Your task to perform on an android device: check out phone information Image 0: 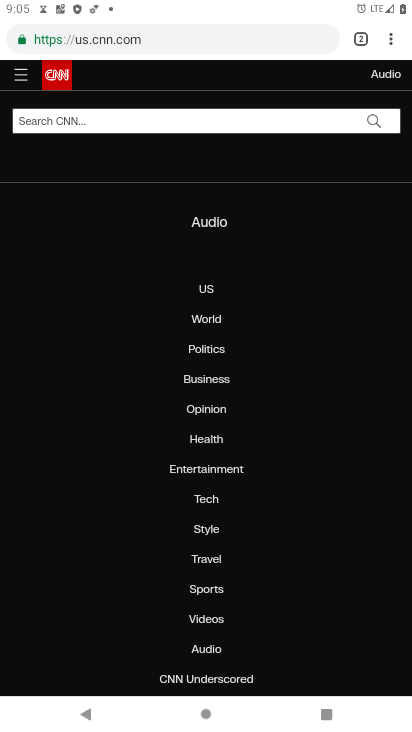
Step 0: press home button
Your task to perform on an android device: check out phone information Image 1: 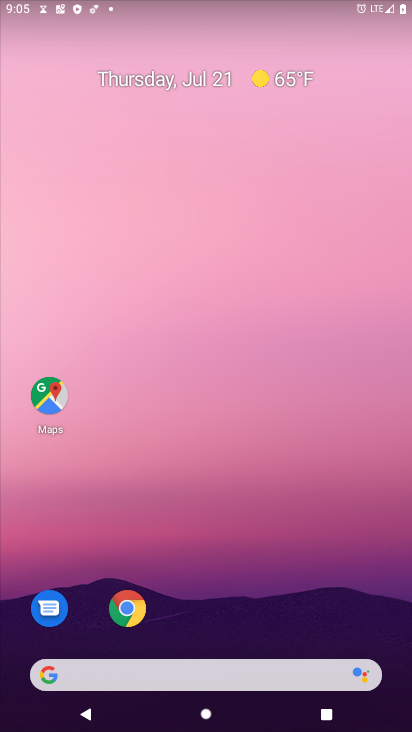
Step 1: drag from (215, 677) to (198, 11)
Your task to perform on an android device: check out phone information Image 2: 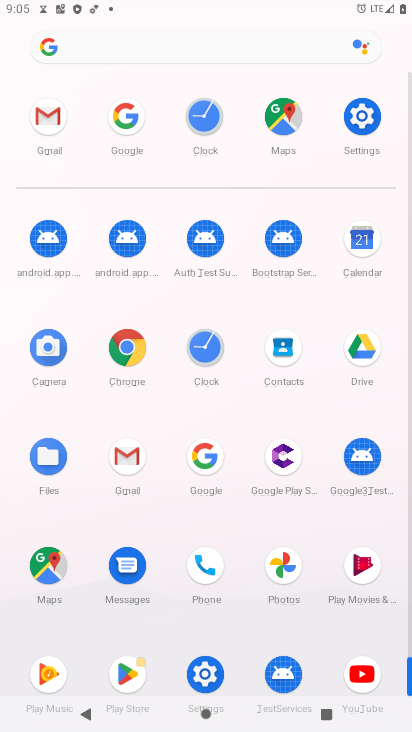
Step 2: click (361, 115)
Your task to perform on an android device: check out phone information Image 3: 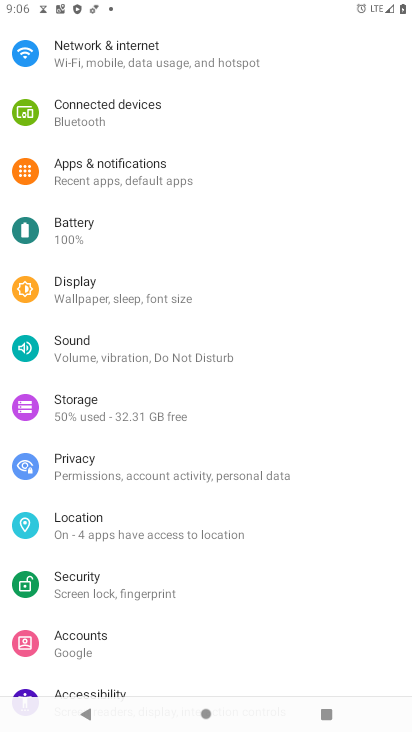
Step 3: drag from (129, 582) to (252, 418)
Your task to perform on an android device: check out phone information Image 4: 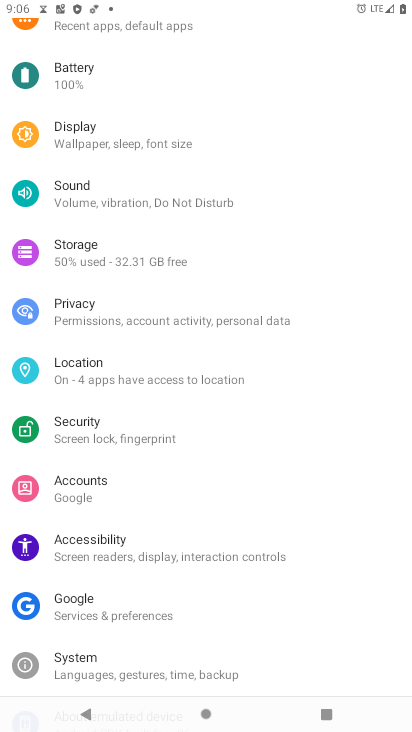
Step 4: drag from (110, 571) to (174, 483)
Your task to perform on an android device: check out phone information Image 5: 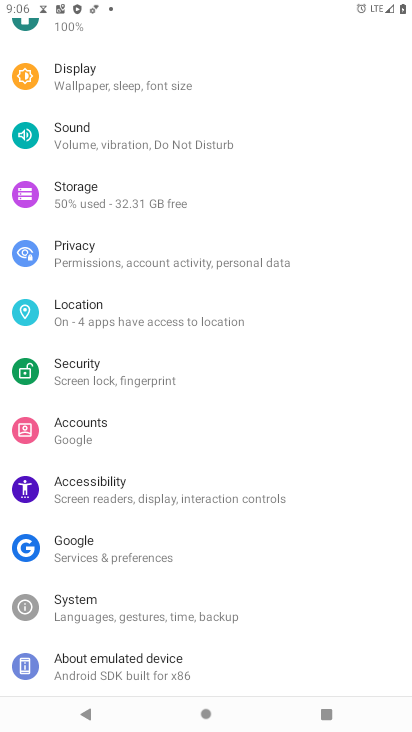
Step 5: drag from (131, 593) to (221, 456)
Your task to perform on an android device: check out phone information Image 6: 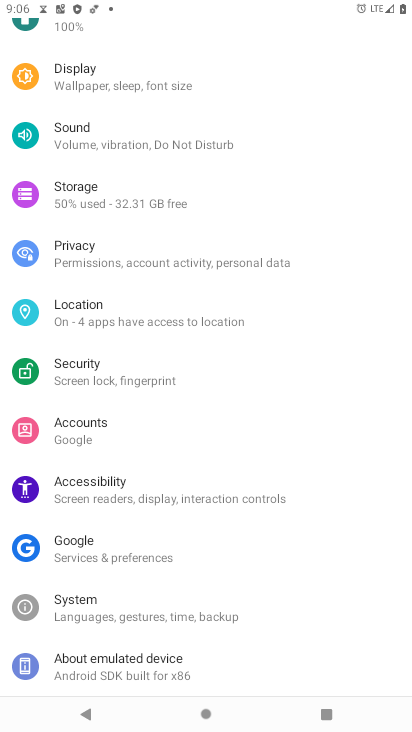
Step 6: click (107, 661)
Your task to perform on an android device: check out phone information Image 7: 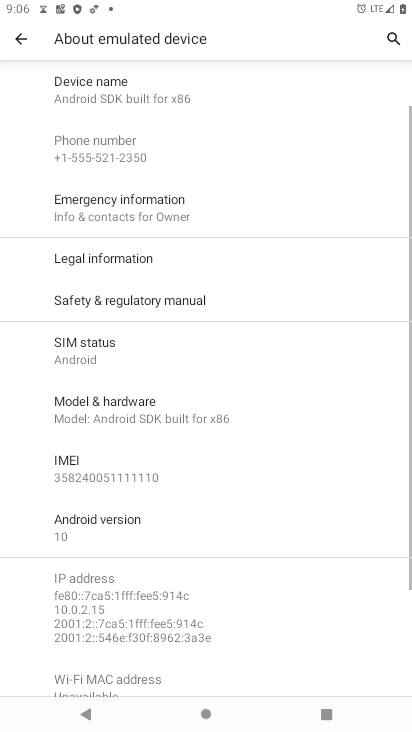
Step 7: task complete